Your task to perform on an android device: check battery use Image 0: 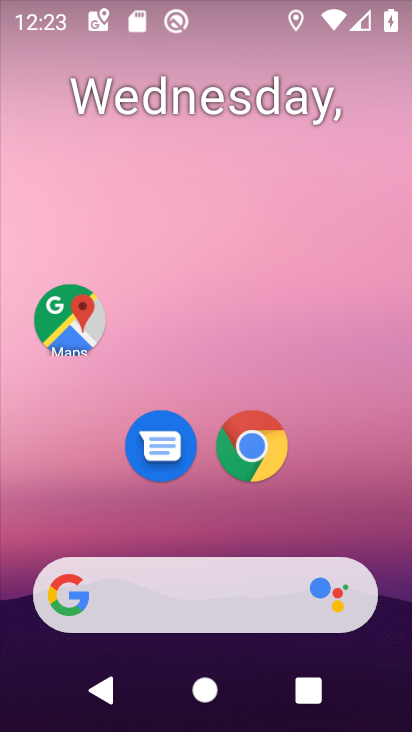
Step 0: drag from (364, 439) to (331, 0)
Your task to perform on an android device: check battery use Image 1: 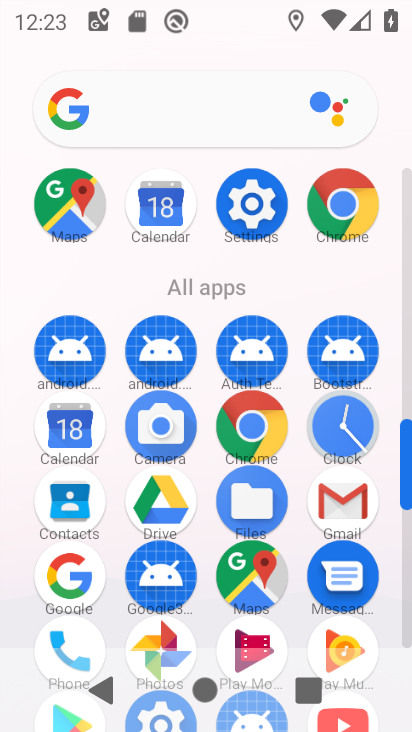
Step 1: click (257, 213)
Your task to perform on an android device: check battery use Image 2: 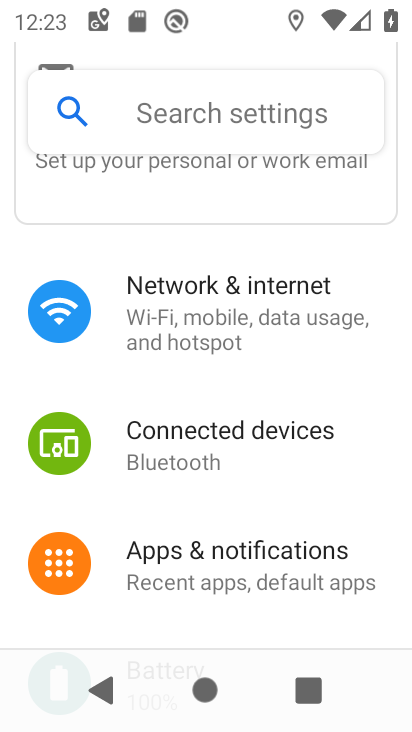
Step 2: drag from (326, 502) to (324, 121)
Your task to perform on an android device: check battery use Image 3: 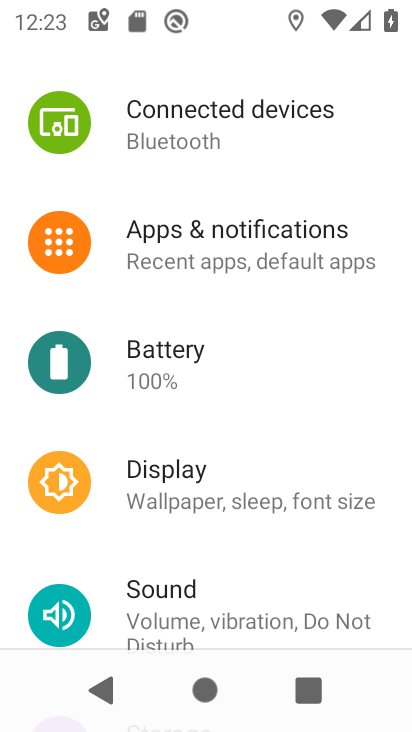
Step 3: click (167, 348)
Your task to perform on an android device: check battery use Image 4: 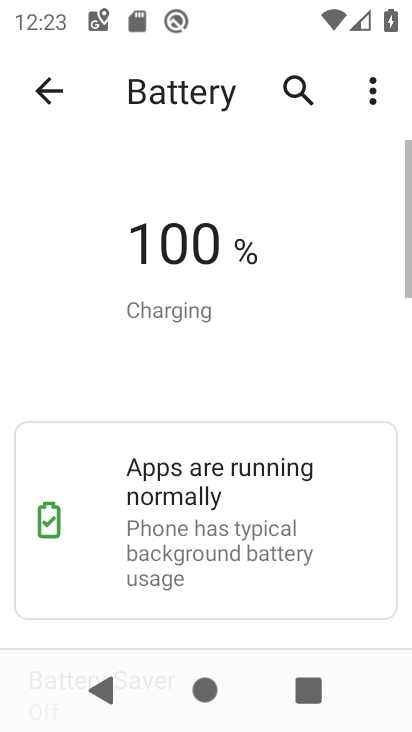
Step 4: click (373, 91)
Your task to perform on an android device: check battery use Image 5: 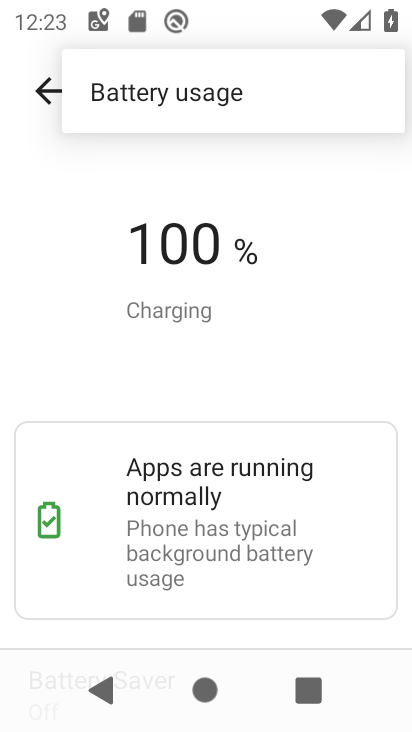
Step 5: click (168, 97)
Your task to perform on an android device: check battery use Image 6: 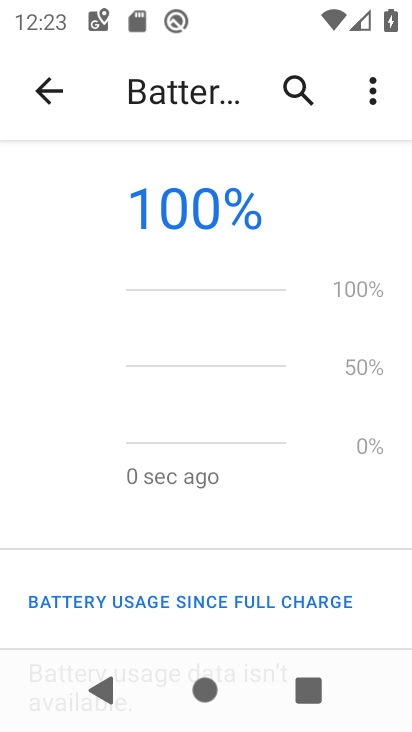
Step 6: task complete